Your task to perform on an android device: move an email to a new category in the gmail app Image 0: 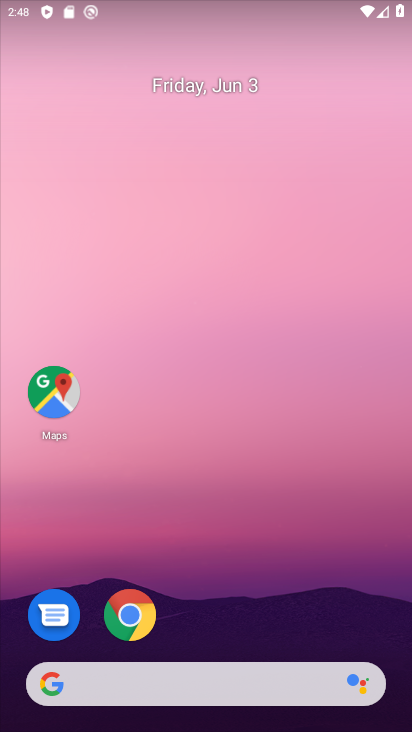
Step 0: drag from (214, 619) to (359, 17)
Your task to perform on an android device: move an email to a new category in the gmail app Image 1: 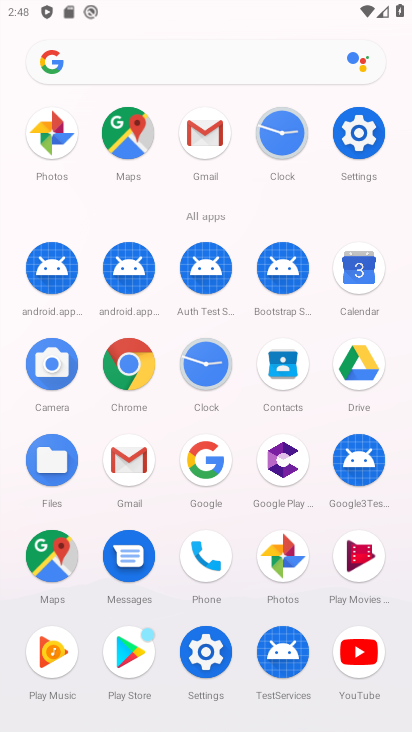
Step 1: click (119, 461)
Your task to perform on an android device: move an email to a new category in the gmail app Image 2: 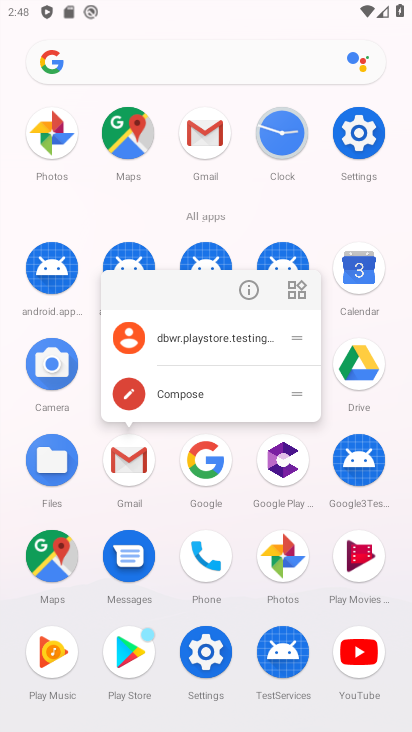
Step 2: click (126, 468)
Your task to perform on an android device: move an email to a new category in the gmail app Image 3: 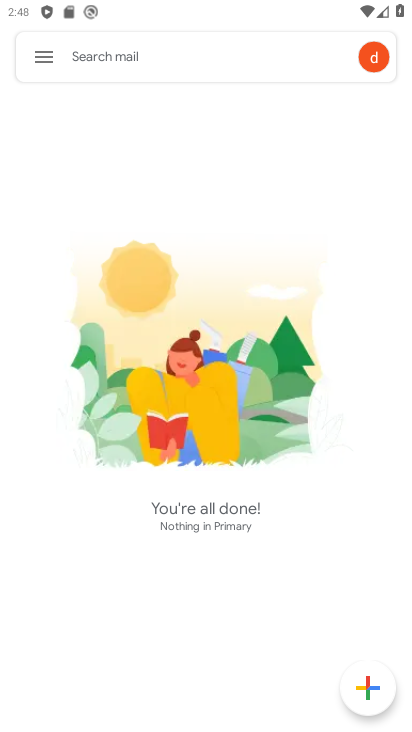
Step 3: click (45, 56)
Your task to perform on an android device: move an email to a new category in the gmail app Image 4: 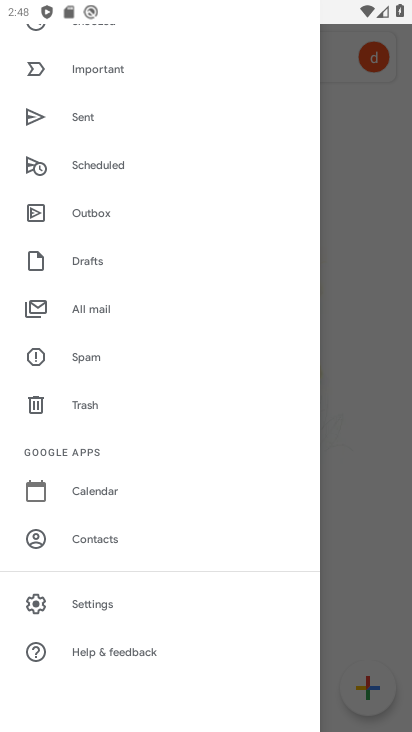
Step 4: click (97, 299)
Your task to perform on an android device: move an email to a new category in the gmail app Image 5: 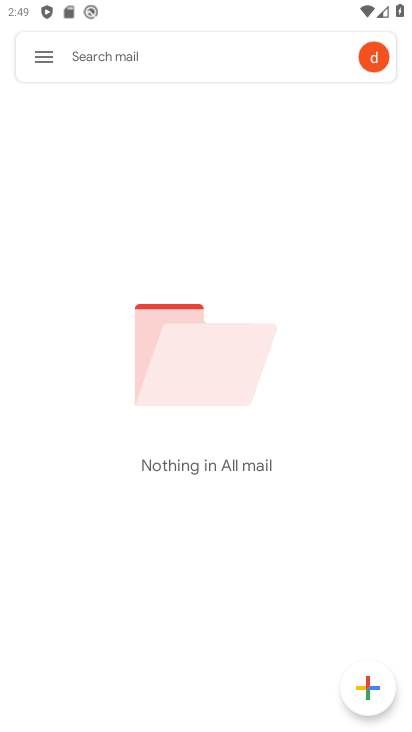
Step 5: task complete